Your task to perform on an android device: Open Google Chrome Image 0: 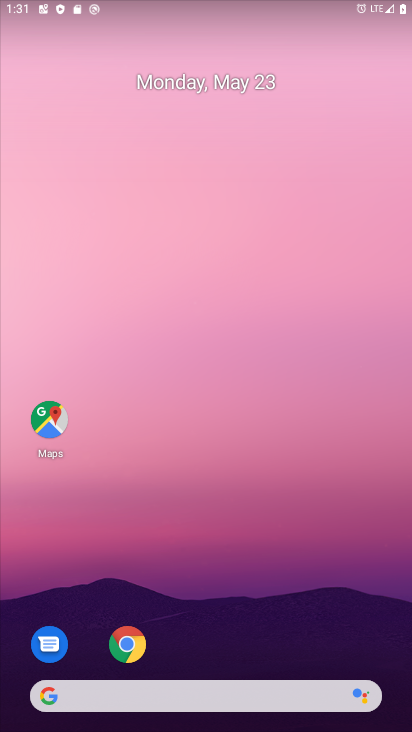
Step 0: drag from (372, 634) to (221, 49)
Your task to perform on an android device: Open Google Chrome Image 1: 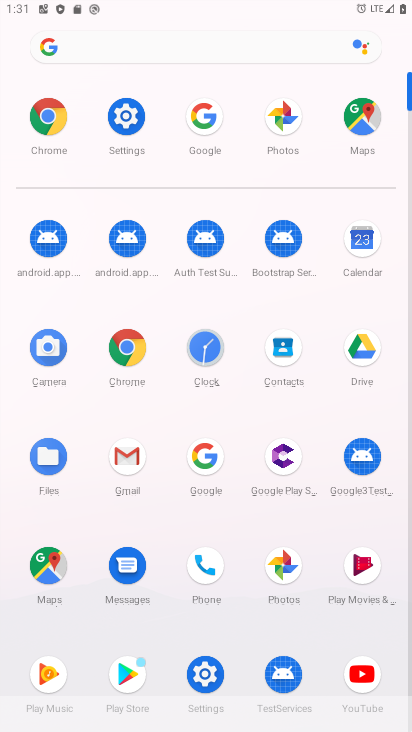
Step 1: click (122, 368)
Your task to perform on an android device: Open Google Chrome Image 2: 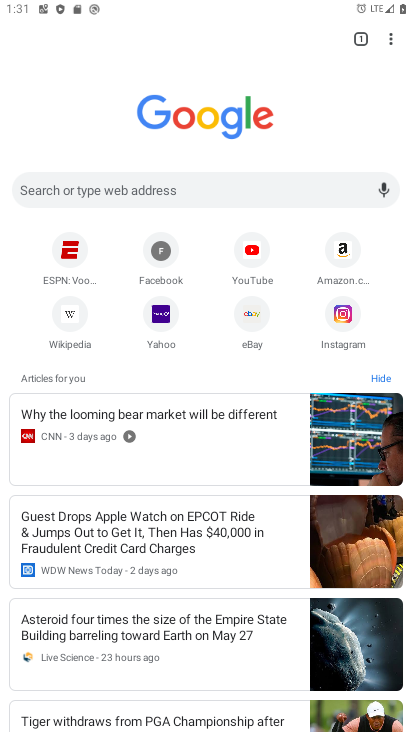
Step 2: task complete